Your task to perform on an android device: Go to location settings Image 0: 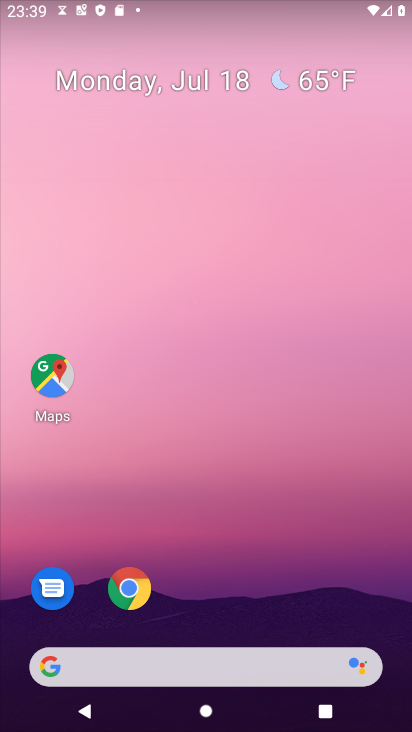
Step 0: press home button
Your task to perform on an android device: Go to location settings Image 1: 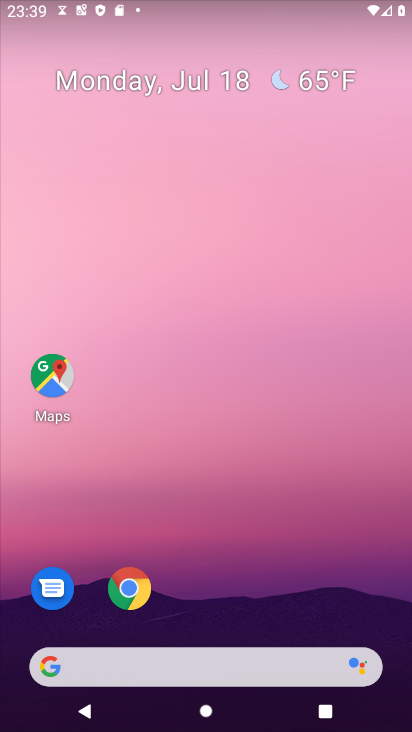
Step 1: drag from (290, 594) to (324, 59)
Your task to perform on an android device: Go to location settings Image 2: 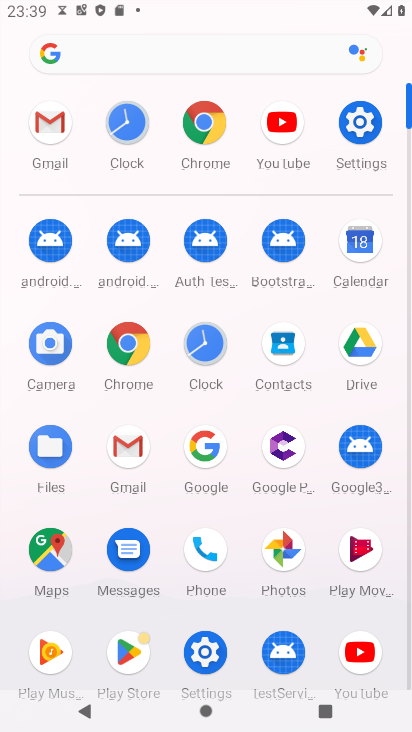
Step 2: click (369, 119)
Your task to perform on an android device: Go to location settings Image 3: 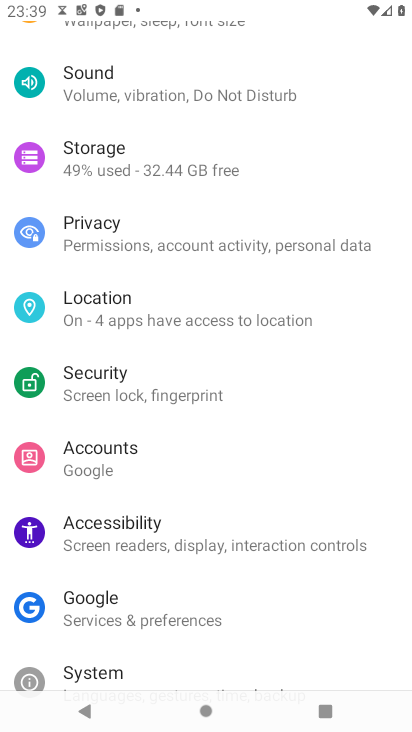
Step 3: drag from (196, 488) to (216, 222)
Your task to perform on an android device: Go to location settings Image 4: 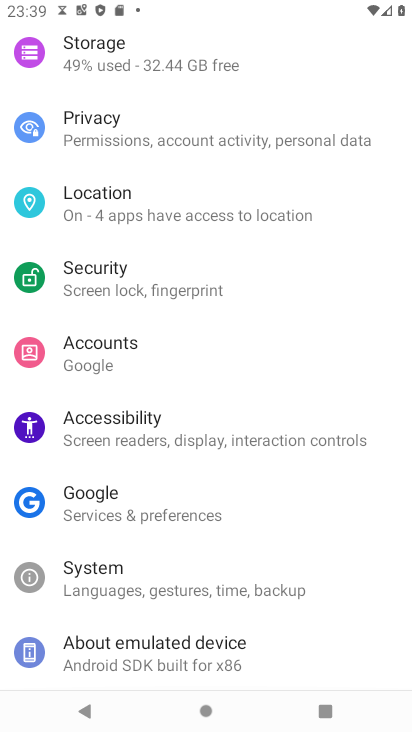
Step 4: click (183, 198)
Your task to perform on an android device: Go to location settings Image 5: 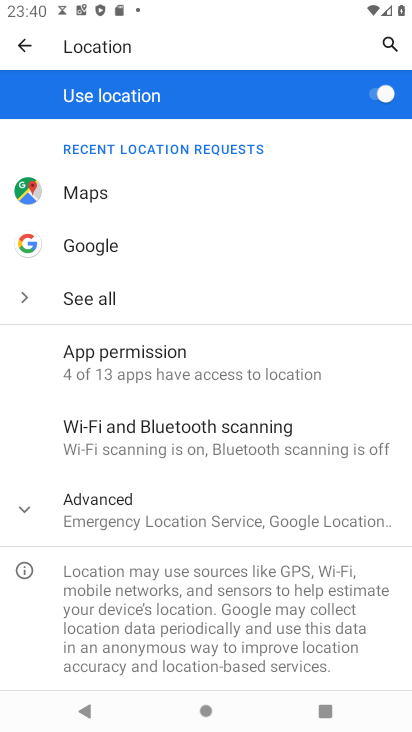
Step 5: task complete